Your task to perform on an android device: clear history in the chrome app Image 0: 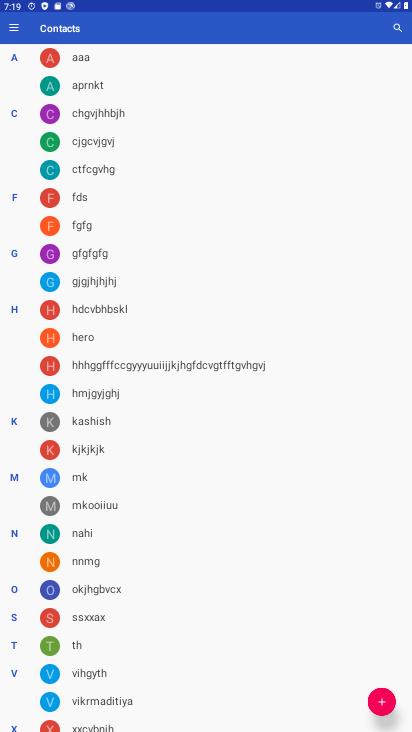
Step 0: press home button
Your task to perform on an android device: clear history in the chrome app Image 1: 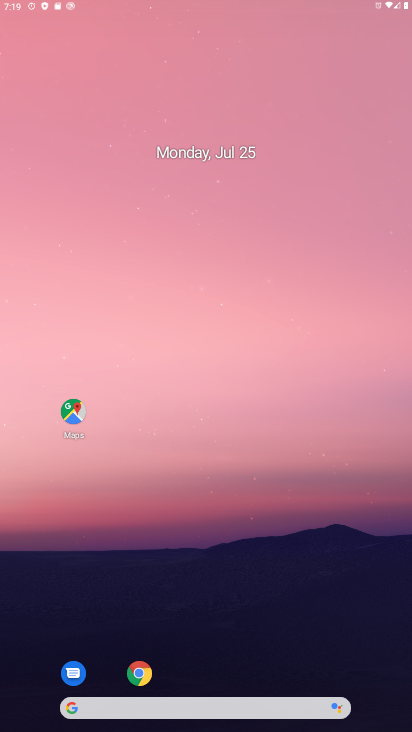
Step 1: drag from (314, 477) to (247, 7)
Your task to perform on an android device: clear history in the chrome app Image 2: 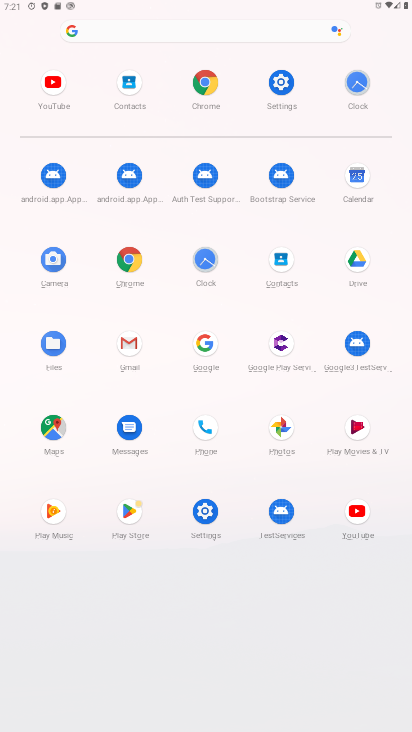
Step 2: click (106, 262)
Your task to perform on an android device: clear history in the chrome app Image 3: 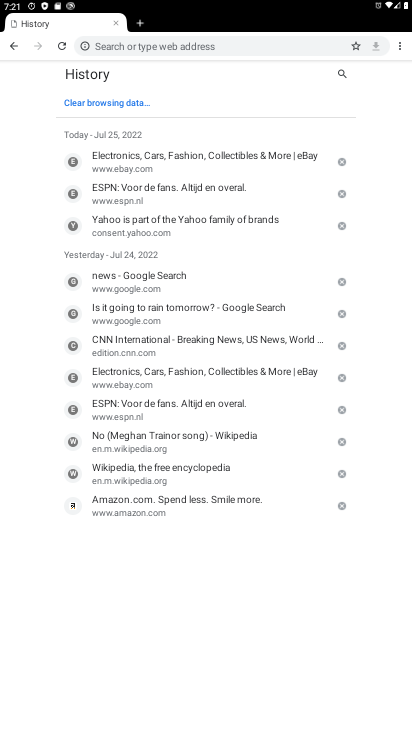
Step 3: click (78, 102)
Your task to perform on an android device: clear history in the chrome app Image 4: 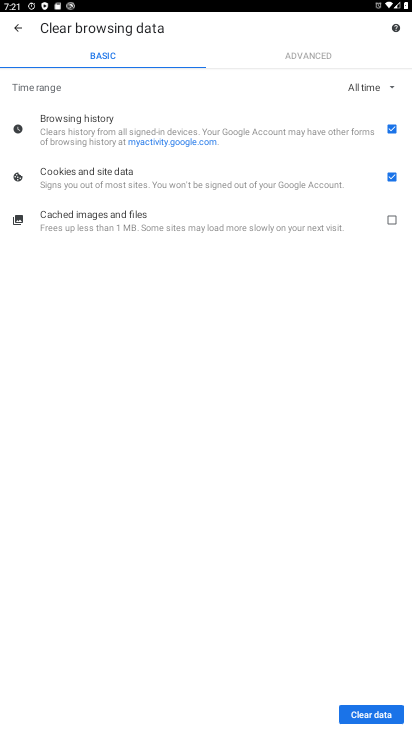
Step 4: click (363, 718)
Your task to perform on an android device: clear history in the chrome app Image 5: 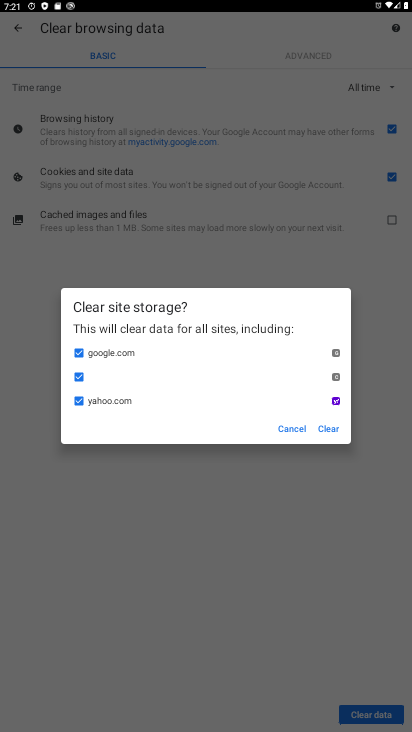
Step 5: click (323, 430)
Your task to perform on an android device: clear history in the chrome app Image 6: 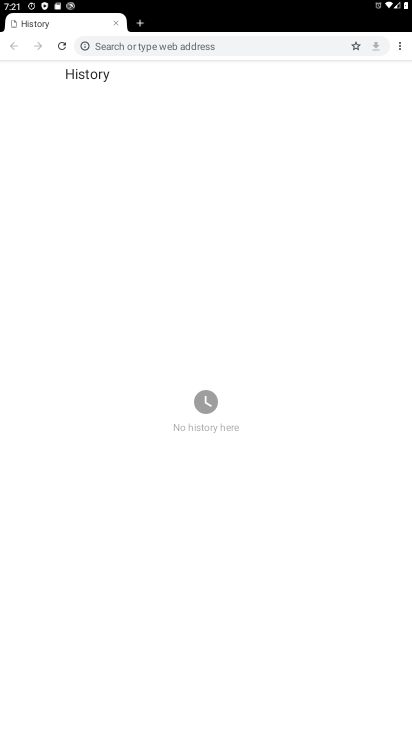
Step 6: task complete